Your task to perform on an android device: Is it going to rain today? Image 0: 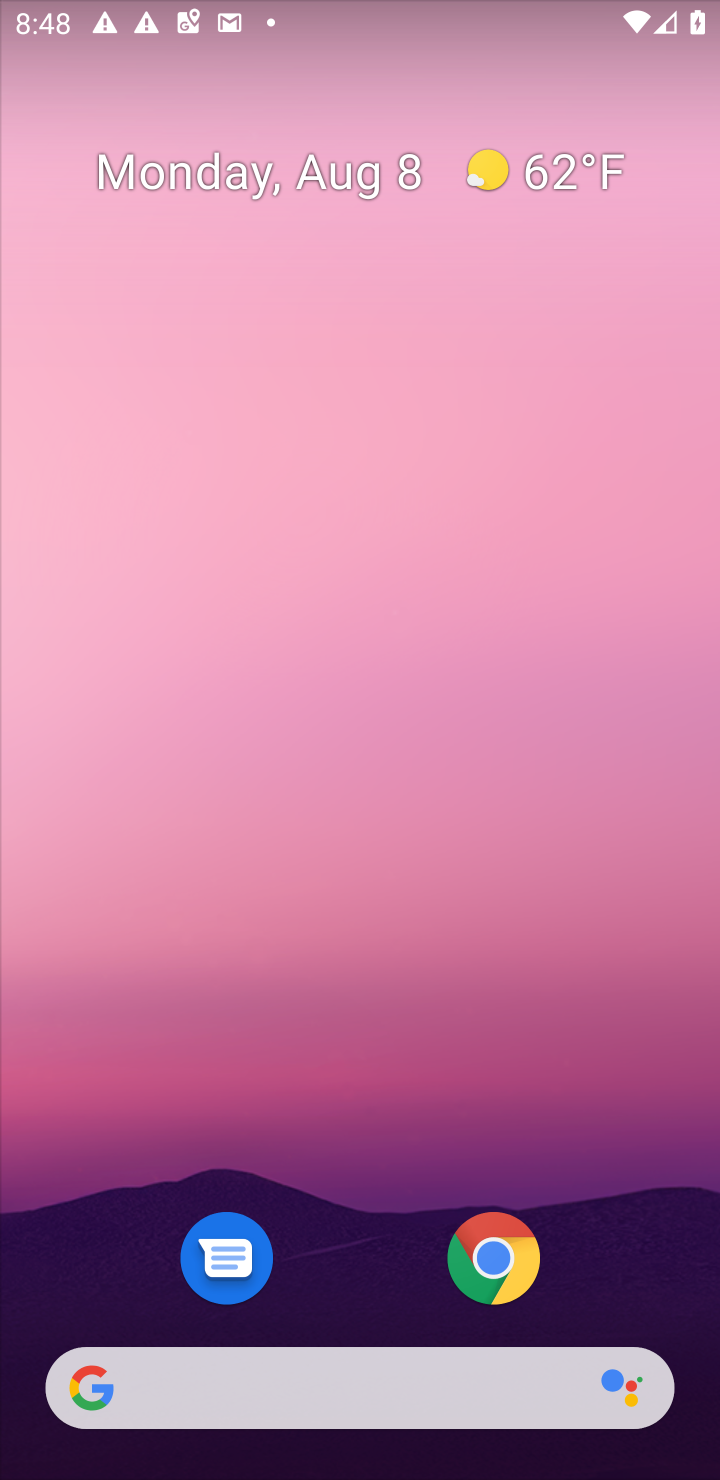
Step 0: click (501, 1379)
Your task to perform on an android device: Is it going to rain today? Image 1: 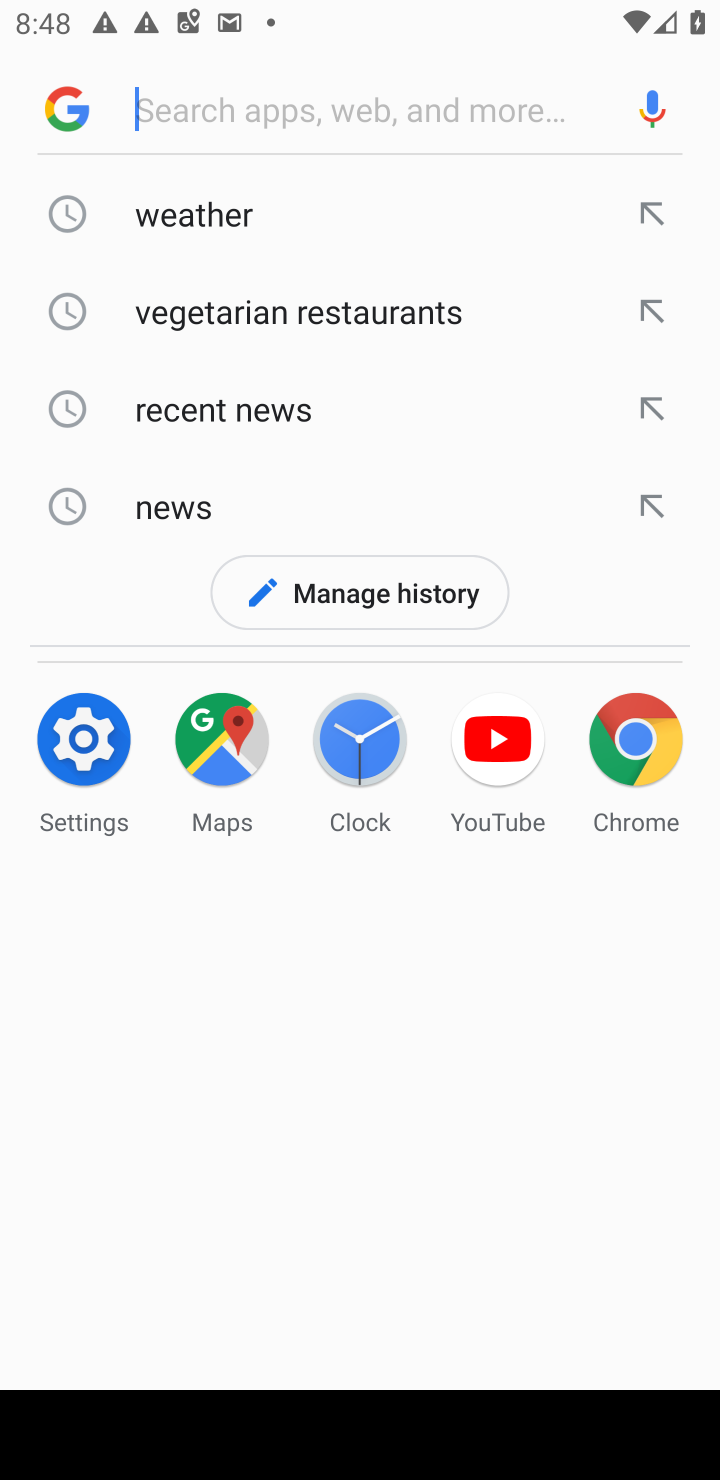
Step 1: type "Is it going to rain today?"
Your task to perform on an android device: Is it going to rain today? Image 2: 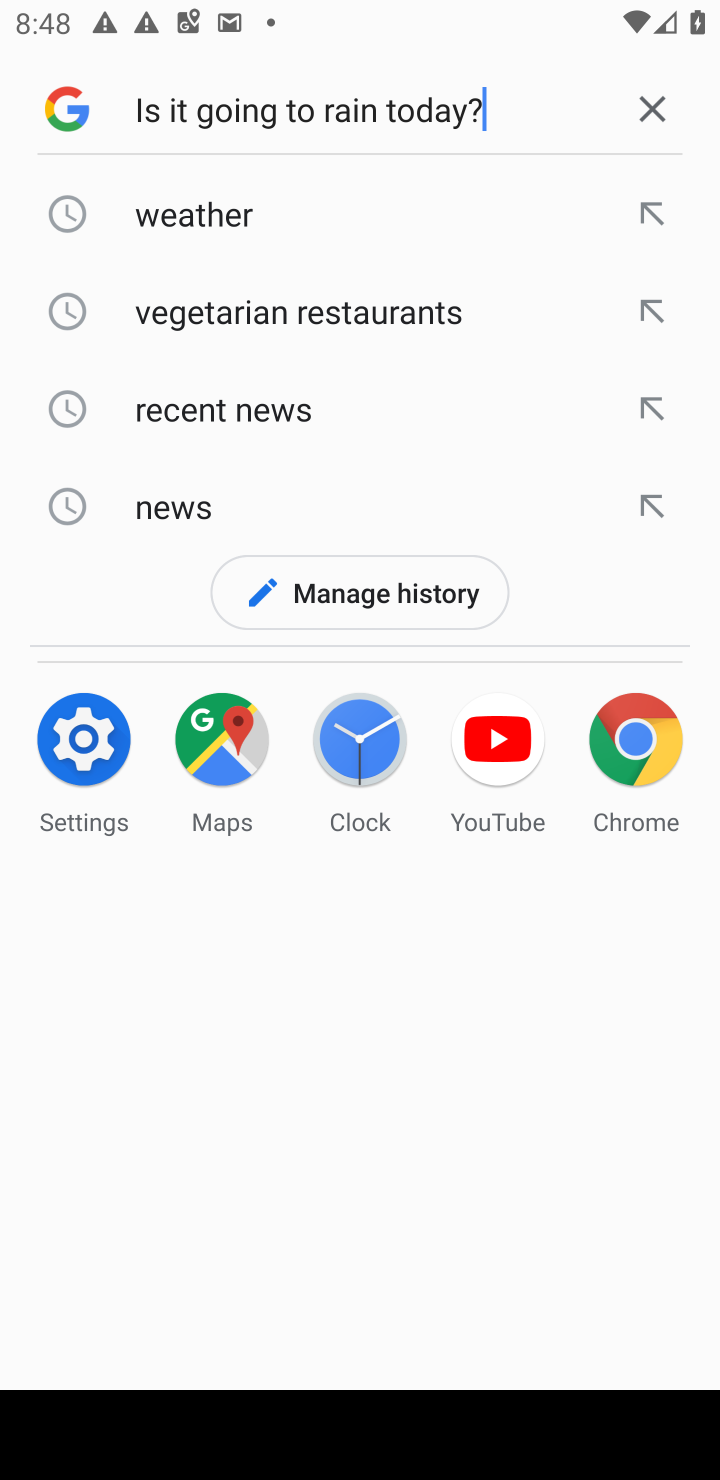
Step 2: press enter
Your task to perform on an android device: Is it going to rain today? Image 3: 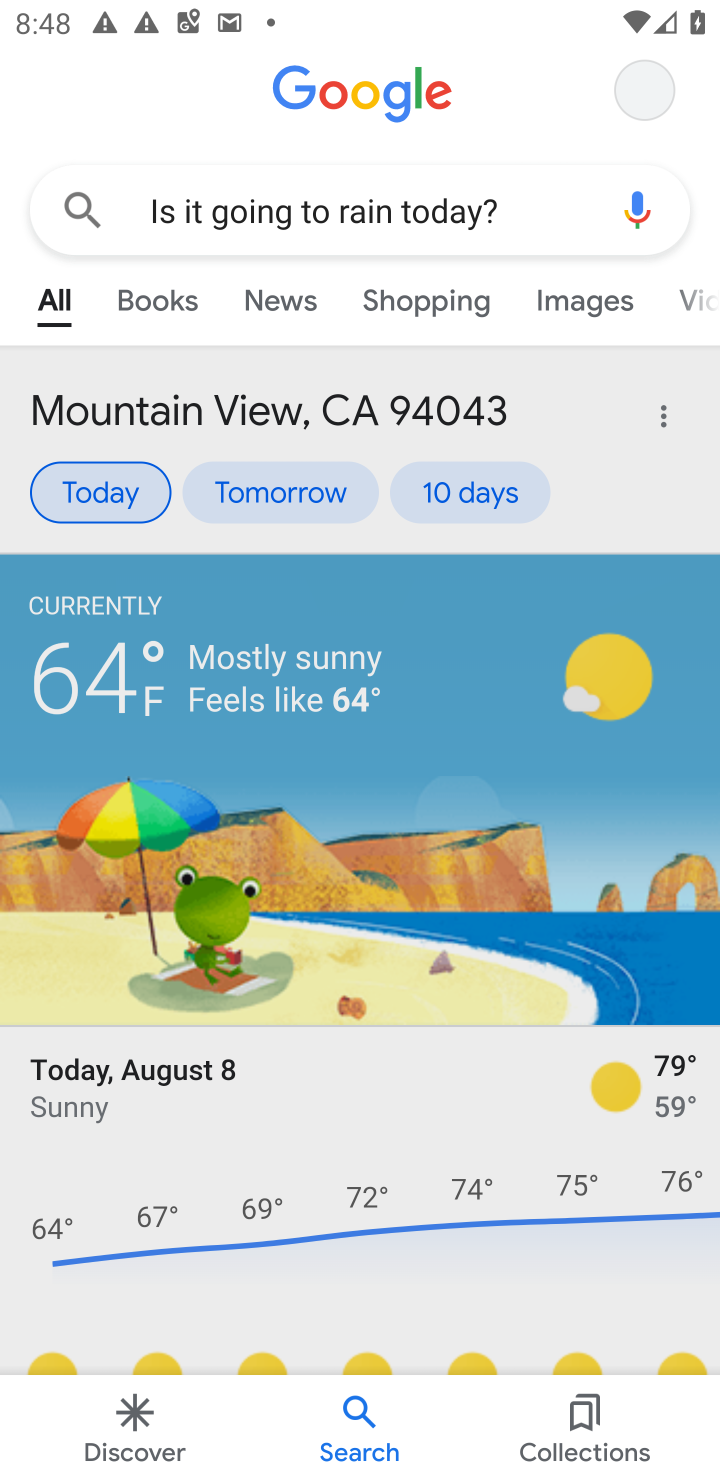
Step 3: task complete